Your task to perform on an android device: Open Yahoo.com Image 0: 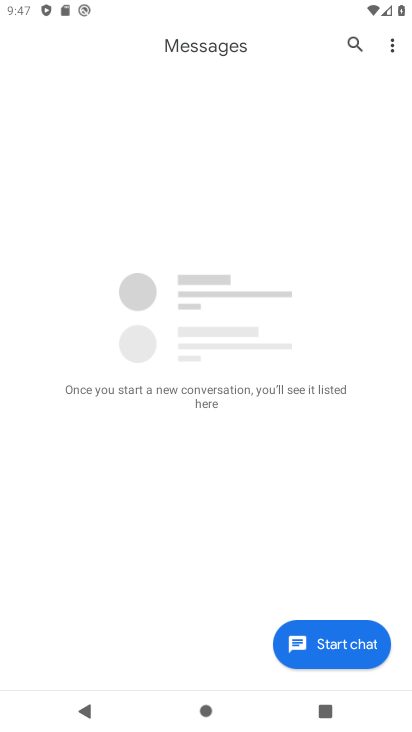
Step 0: press home button
Your task to perform on an android device: Open Yahoo.com Image 1: 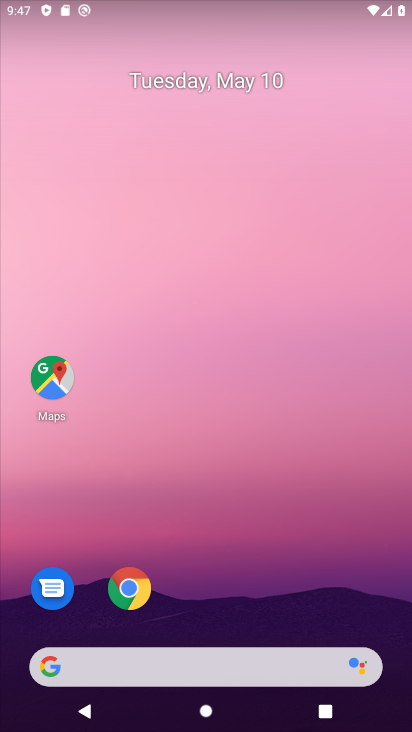
Step 1: click (133, 584)
Your task to perform on an android device: Open Yahoo.com Image 2: 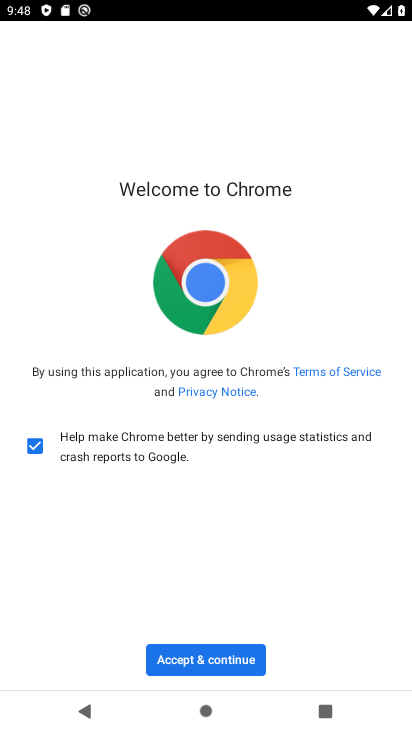
Step 2: click (217, 664)
Your task to perform on an android device: Open Yahoo.com Image 3: 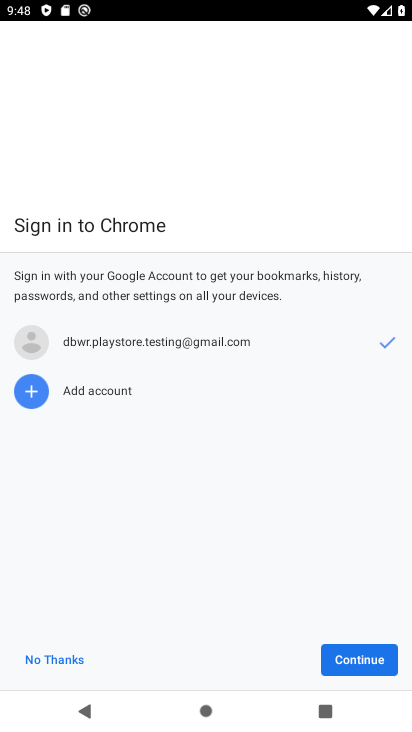
Step 3: click (363, 655)
Your task to perform on an android device: Open Yahoo.com Image 4: 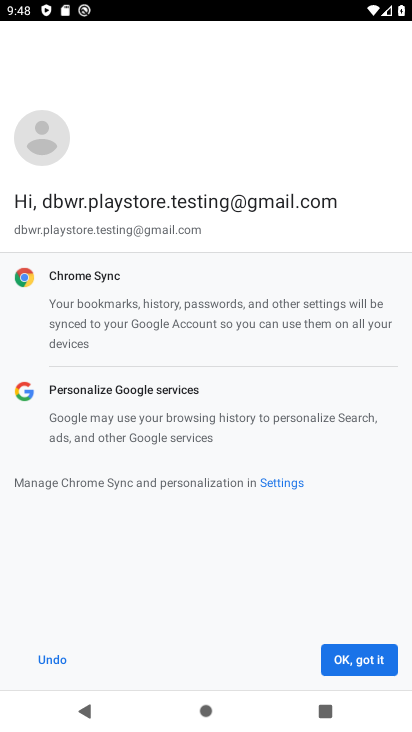
Step 4: click (363, 655)
Your task to perform on an android device: Open Yahoo.com Image 5: 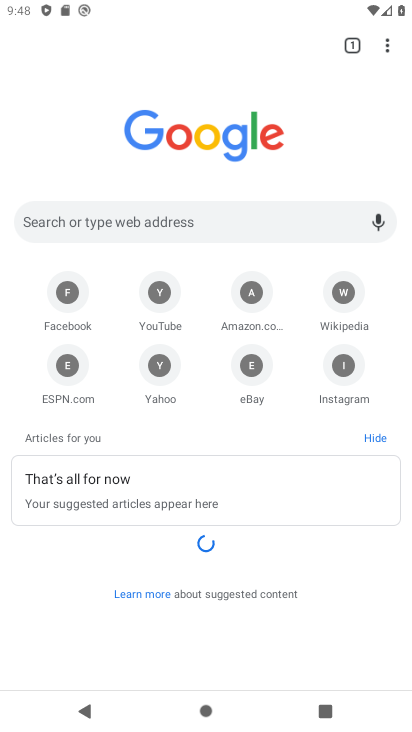
Step 5: click (242, 225)
Your task to perform on an android device: Open Yahoo.com Image 6: 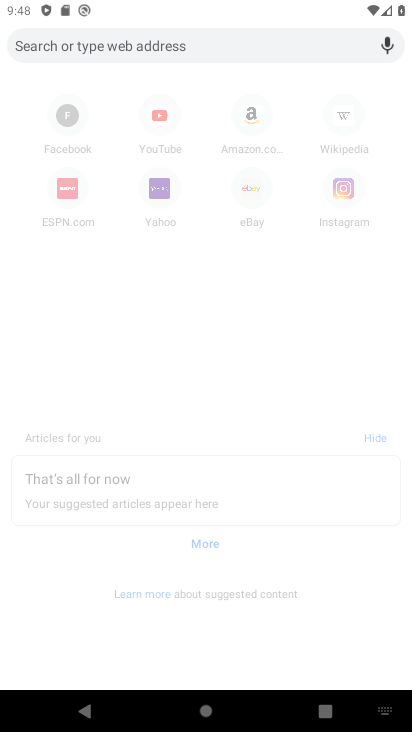
Step 6: type "Yahoo.com"
Your task to perform on an android device: Open Yahoo.com Image 7: 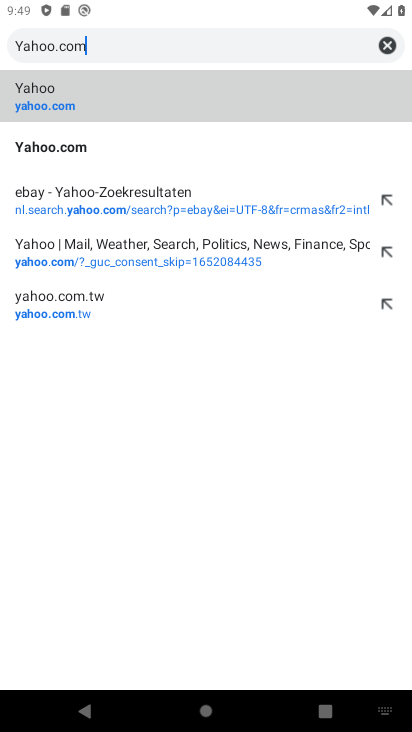
Step 7: click (45, 106)
Your task to perform on an android device: Open Yahoo.com Image 8: 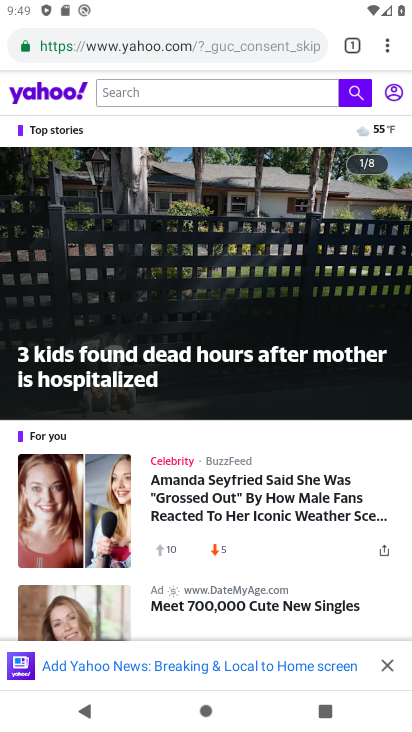
Step 8: task complete